Your task to perform on an android device: check android version Image 0: 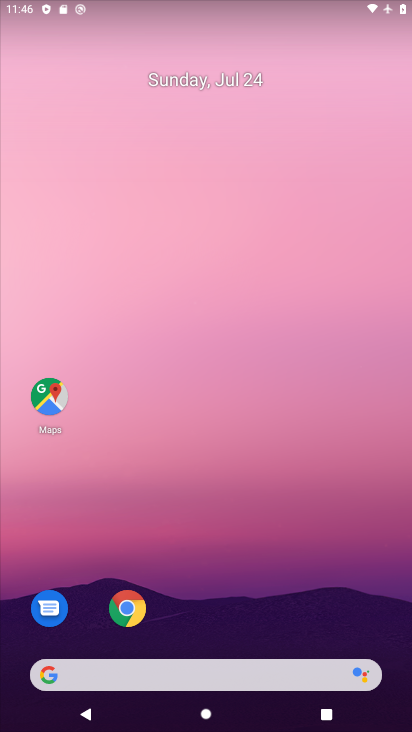
Step 0: drag from (268, 617) to (297, 78)
Your task to perform on an android device: check android version Image 1: 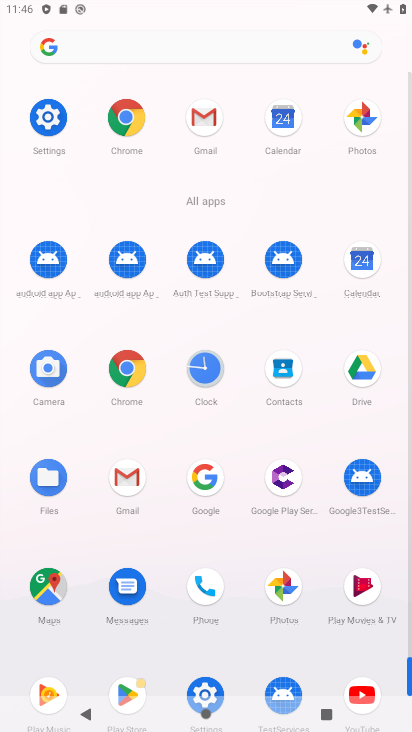
Step 1: click (50, 136)
Your task to perform on an android device: check android version Image 2: 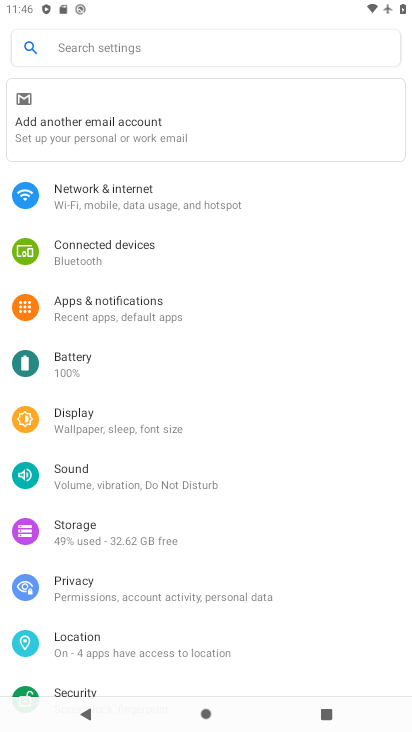
Step 2: drag from (163, 545) to (205, 259)
Your task to perform on an android device: check android version Image 3: 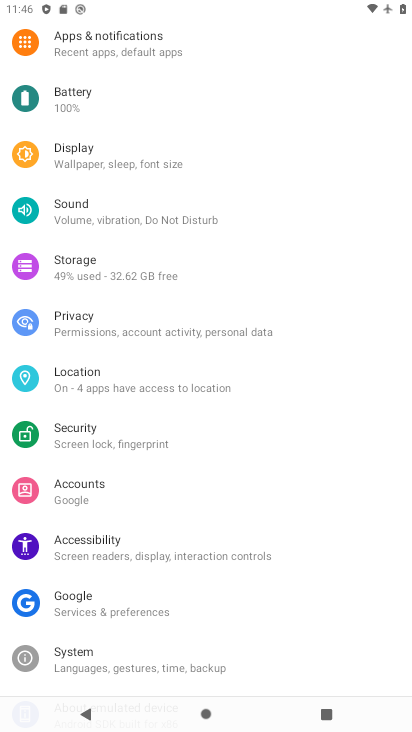
Step 3: drag from (142, 583) to (245, 194)
Your task to perform on an android device: check android version Image 4: 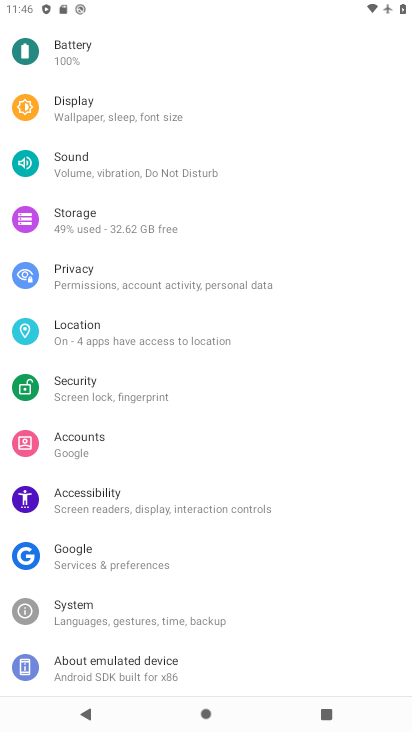
Step 4: click (177, 675)
Your task to perform on an android device: check android version Image 5: 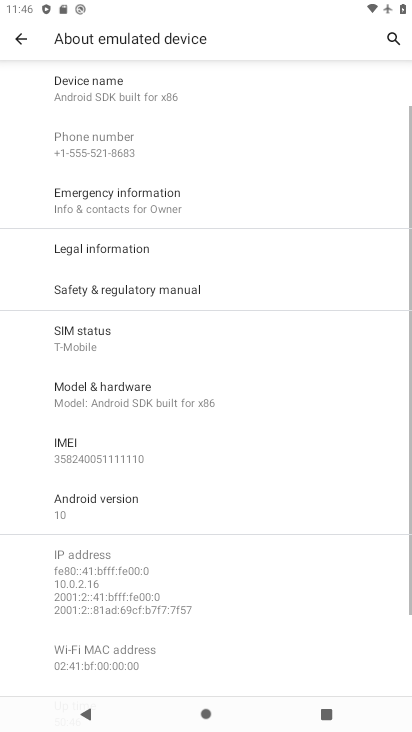
Step 5: click (110, 513)
Your task to perform on an android device: check android version Image 6: 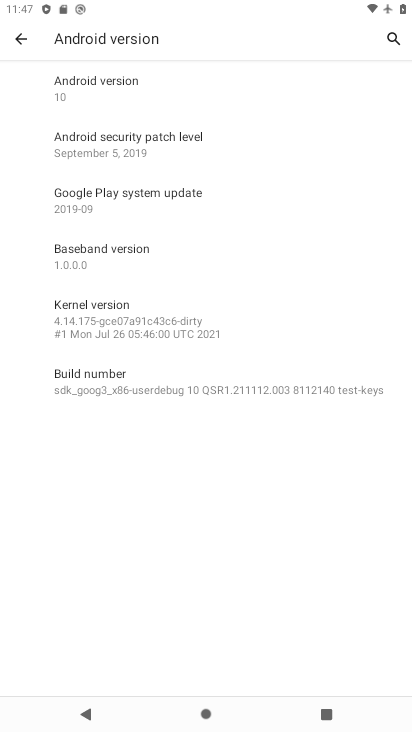
Step 6: task complete